Your task to perform on an android device: Check the news Image 0: 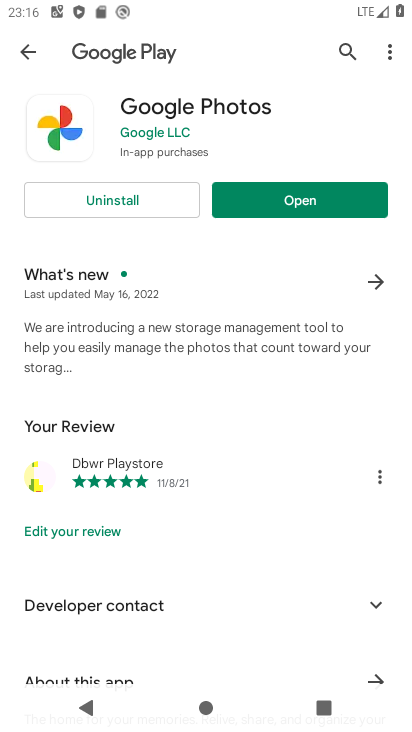
Step 0: press back button
Your task to perform on an android device: Check the news Image 1: 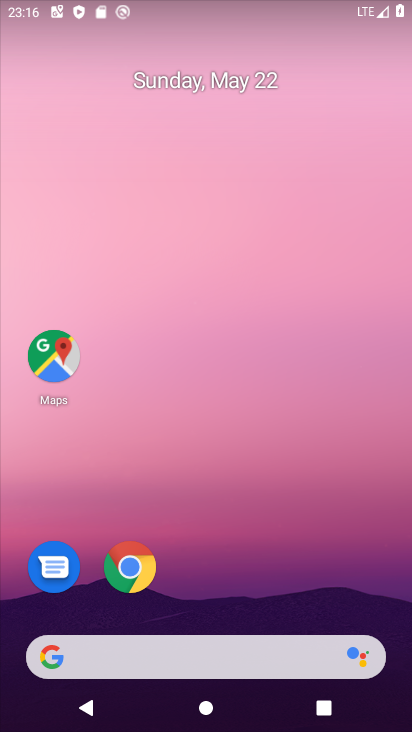
Step 1: drag from (213, 503) to (171, 27)
Your task to perform on an android device: Check the news Image 2: 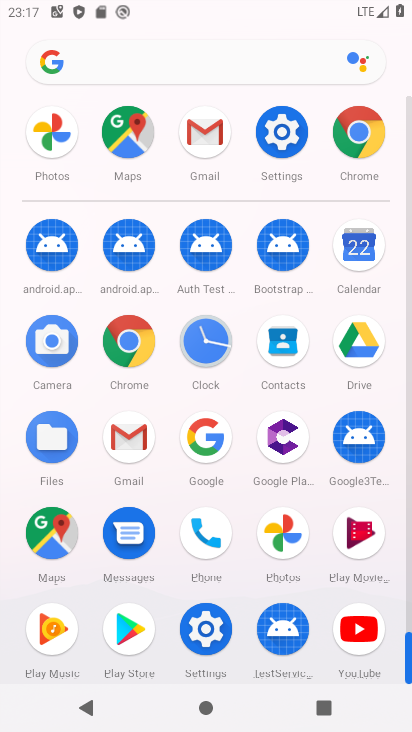
Step 2: click (129, 338)
Your task to perform on an android device: Check the news Image 3: 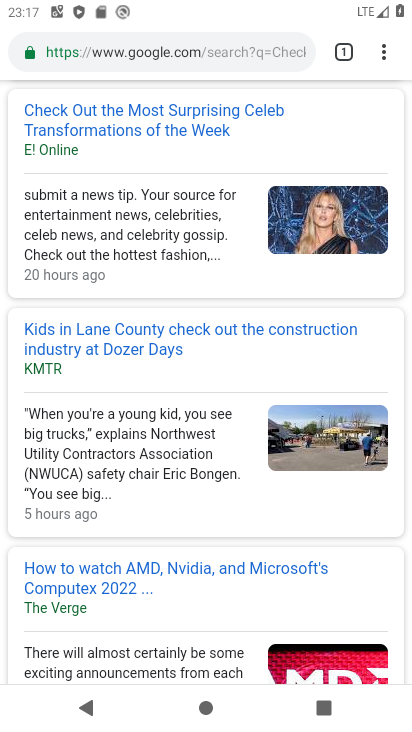
Step 3: click (147, 45)
Your task to perform on an android device: Check the news Image 4: 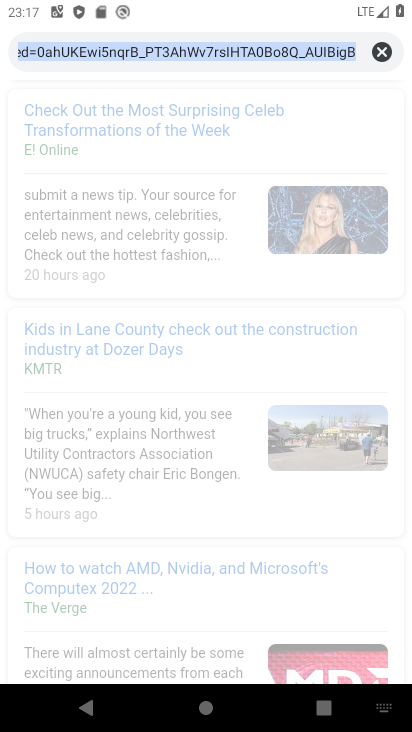
Step 4: click (378, 55)
Your task to perform on an android device: Check the news Image 5: 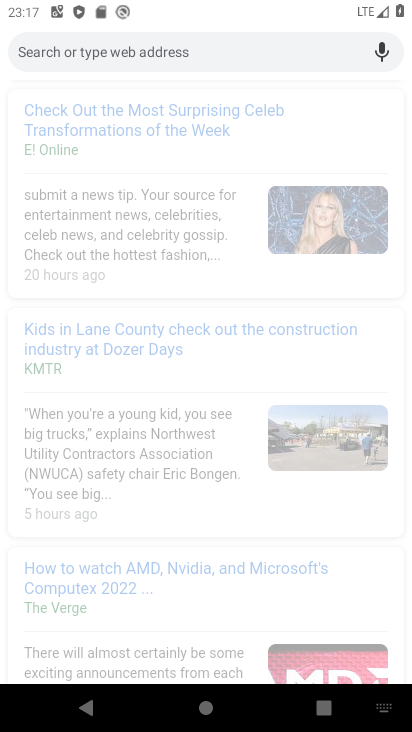
Step 5: type "Check the news"
Your task to perform on an android device: Check the news Image 6: 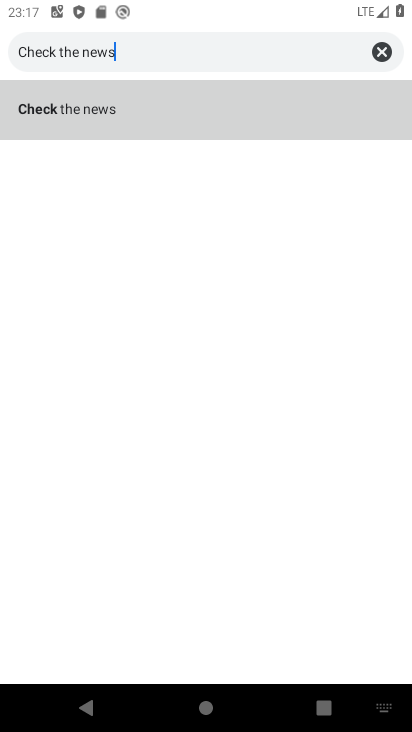
Step 6: type ""
Your task to perform on an android device: Check the news Image 7: 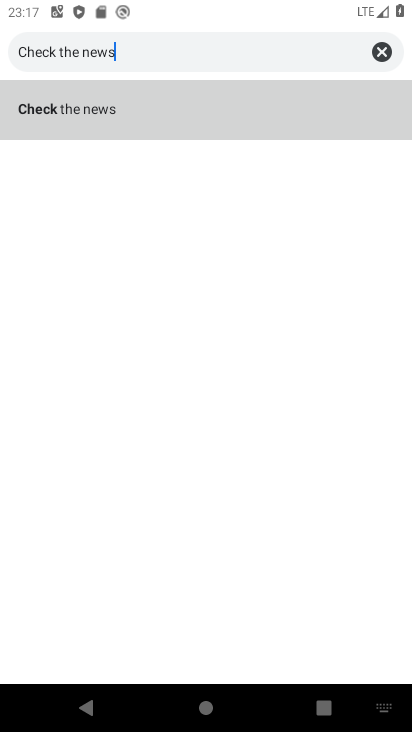
Step 7: click (100, 111)
Your task to perform on an android device: Check the news Image 8: 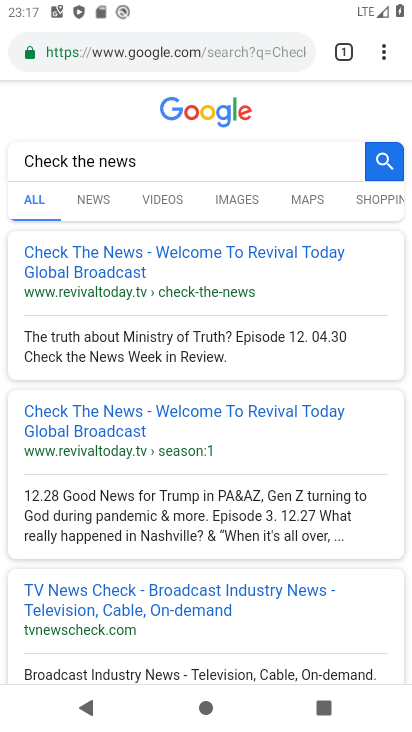
Step 8: click (92, 202)
Your task to perform on an android device: Check the news Image 9: 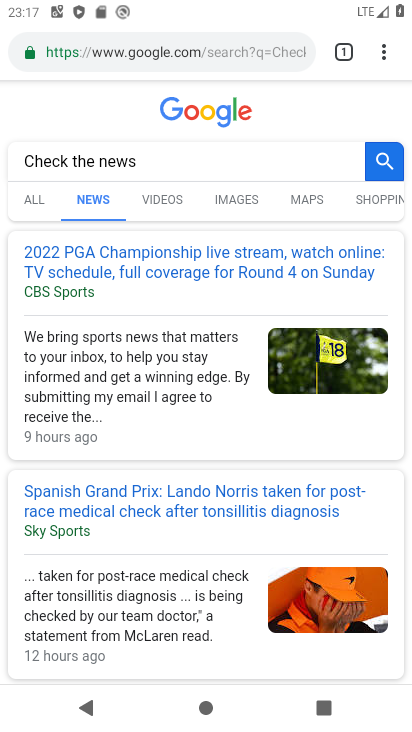
Step 9: task complete